Your task to perform on an android device: Open battery settings Image 0: 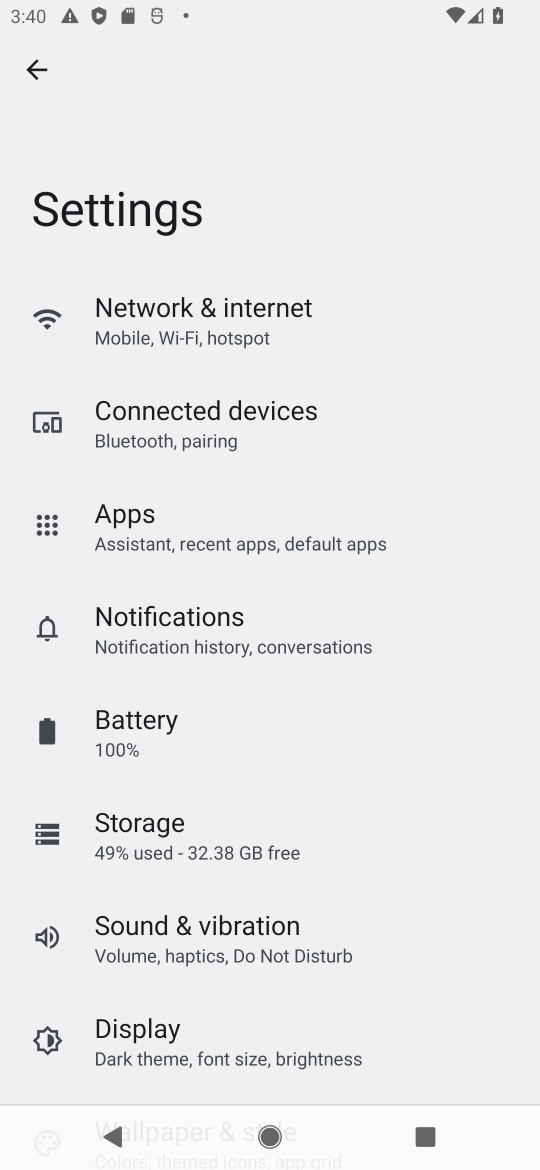
Step 0: click (174, 748)
Your task to perform on an android device: Open battery settings Image 1: 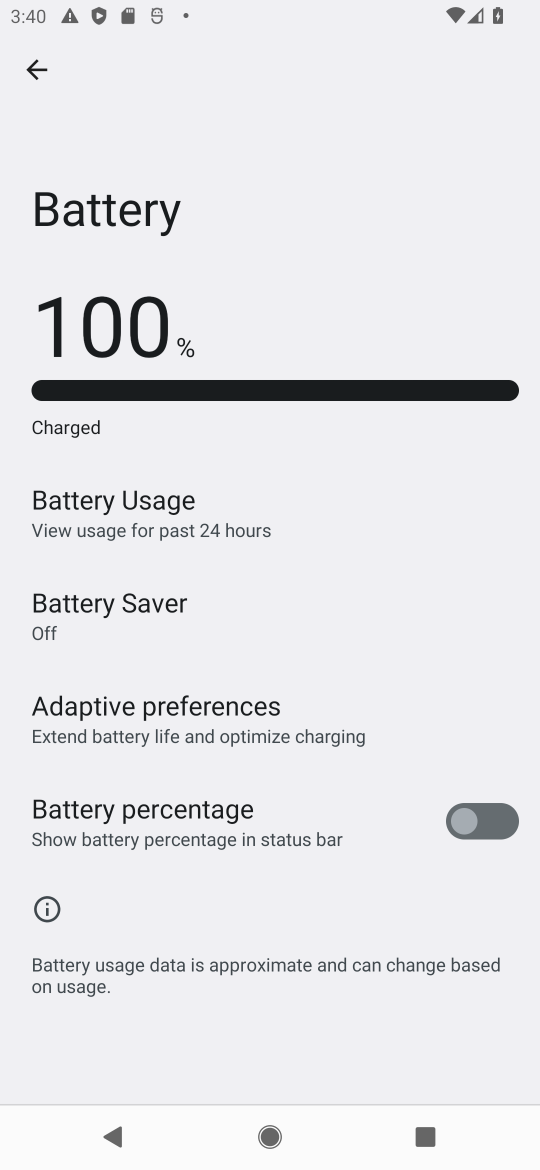
Step 1: task complete